Your task to perform on an android device: Open the phone app and click the voicemail tab. Image 0: 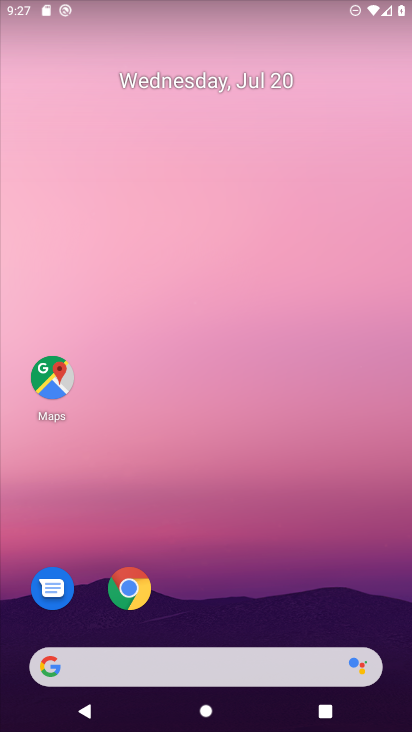
Step 0: drag from (208, 620) to (271, 278)
Your task to perform on an android device: Open the phone app and click the voicemail tab. Image 1: 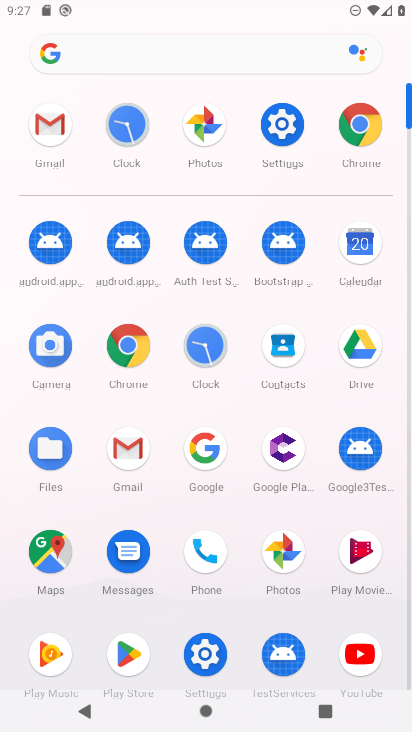
Step 1: click (195, 574)
Your task to perform on an android device: Open the phone app and click the voicemail tab. Image 2: 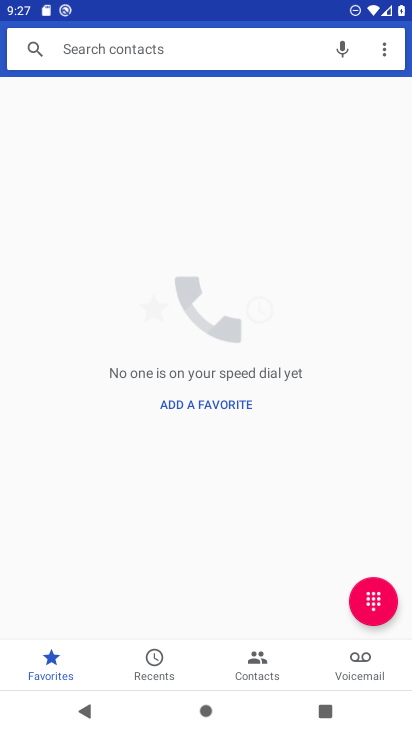
Step 2: click (352, 676)
Your task to perform on an android device: Open the phone app and click the voicemail tab. Image 3: 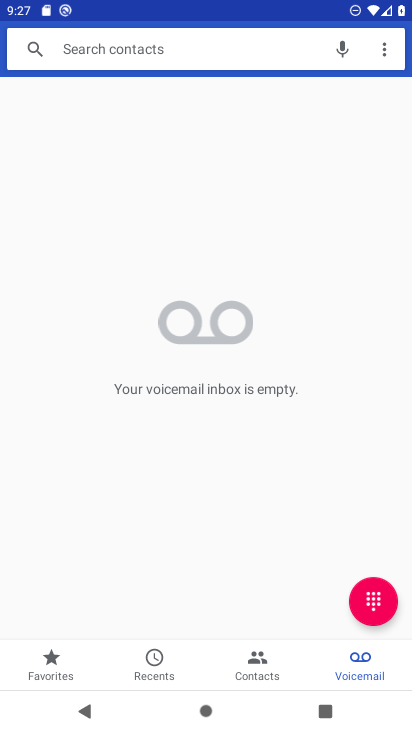
Step 3: task complete